Your task to perform on an android device: check android version Image 0: 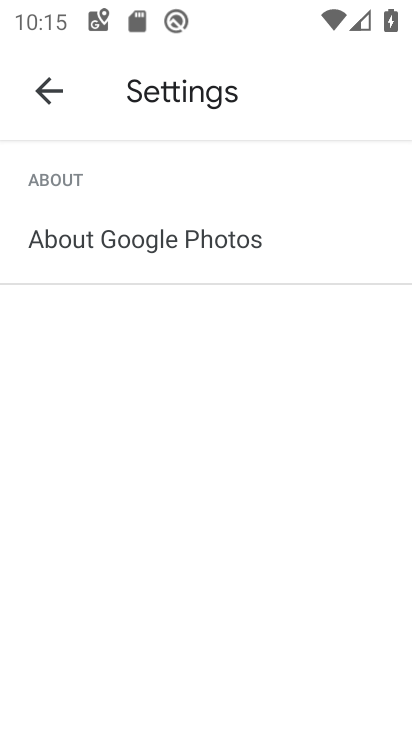
Step 0: press home button
Your task to perform on an android device: check android version Image 1: 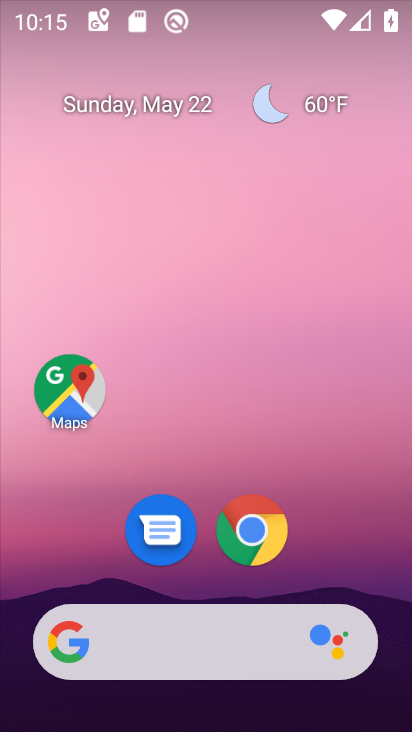
Step 1: drag from (398, 665) to (342, 77)
Your task to perform on an android device: check android version Image 2: 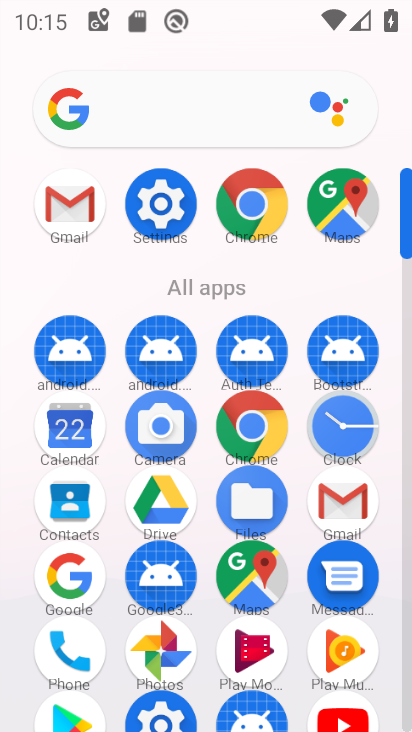
Step 2: click (163, 217)
Your task to perform on an android device: check android version Image 3: 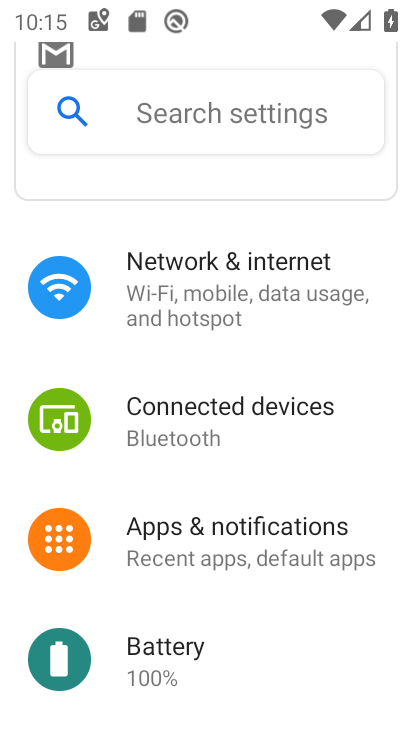
Step 3: drag from (331, 708) to (284, 141)
Your task to perform on an android device: check android version Image 4: 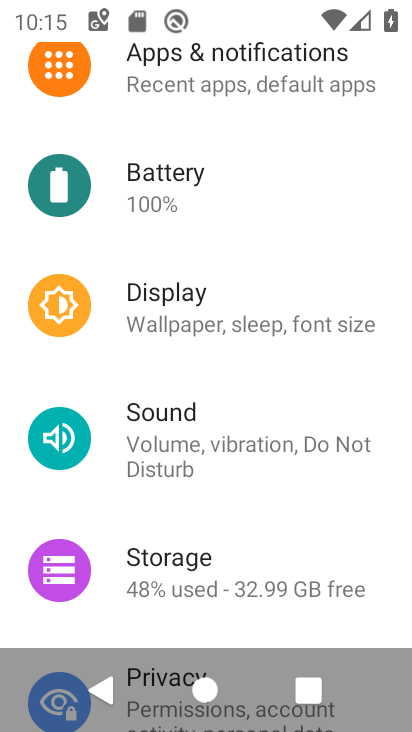
Step 4: drag from (387, 626) to (346, 10)
Your task to perform on an android device: check android version Image 5: 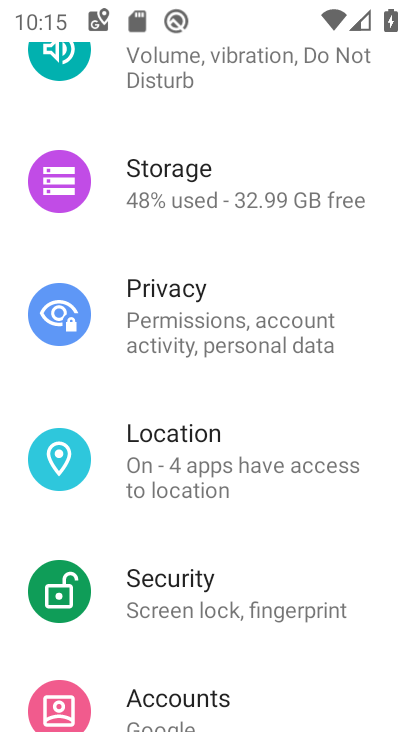
Step 5: drag from (387, 700) to (301, 109)
Your task to perform on an android device: check android version Image 6: 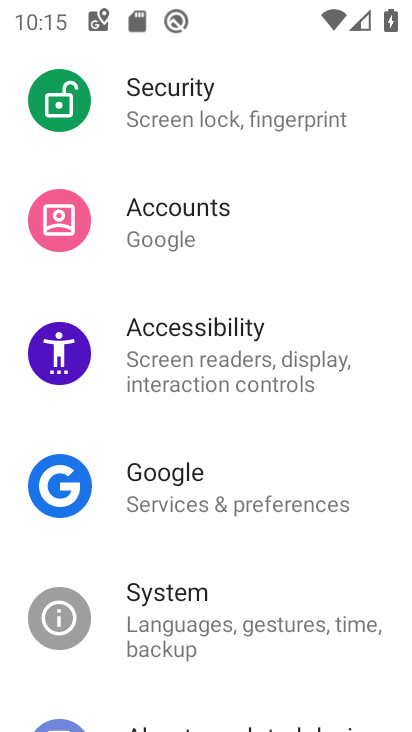
Step 6: drag from (385, 631) to (368, 132)
Your task to perform on an android device: check android version Image 7: 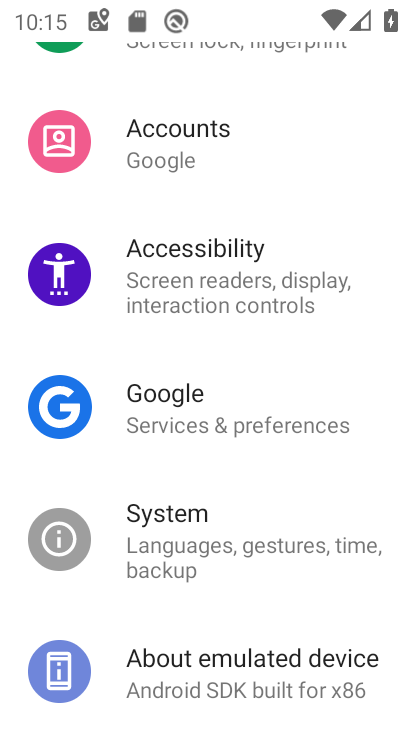
Step 7: click (237, 688)
Your task to perform on an android device: check android version Image 8: 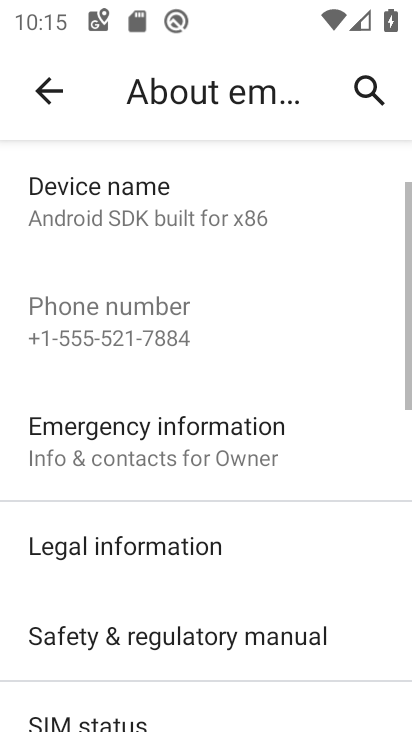
Step 8: drag from (376, 712) to (328, 222)
Your task to perform on an android device: check android version Image 9: 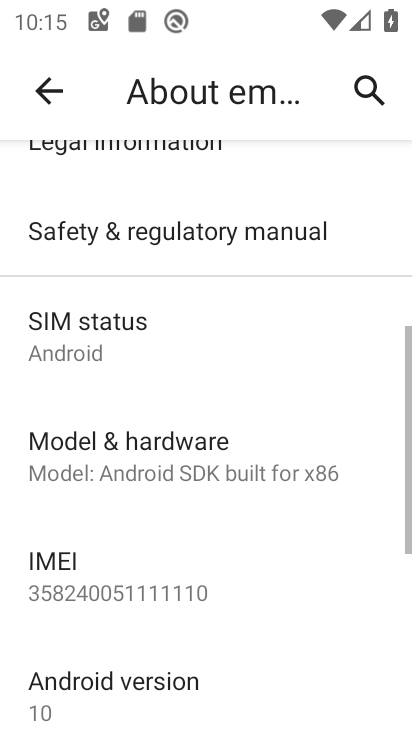
Step 9: drag from (320, 603) to (302, 301)
Your task to perform on an android device: check android version Image 10: 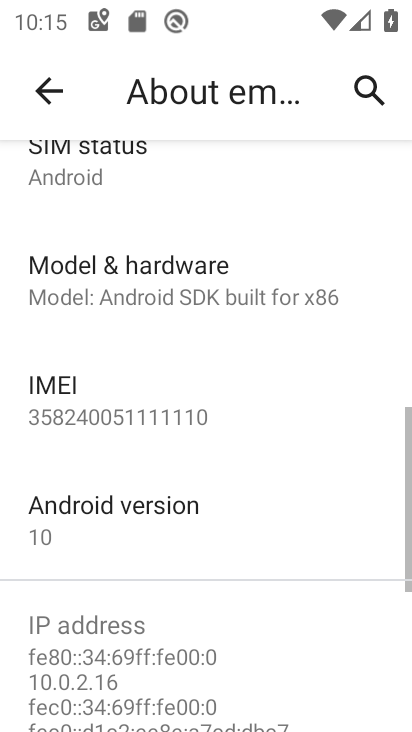
Step 10: click (60, 509)
Your task to perform on an android device: check android version Image 11: 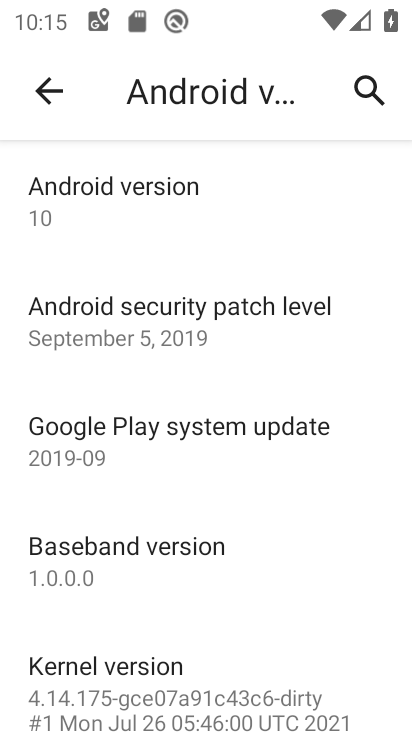
Step 11: click (71, 206)
Your task to perform on an android device: check android version Image 12: 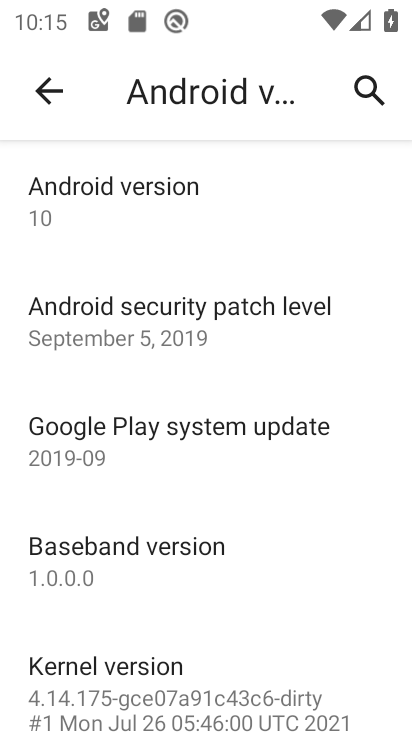
Step 12: task complete